Your task to perform on an android device: add a label to a message in the gmail app Image 0: 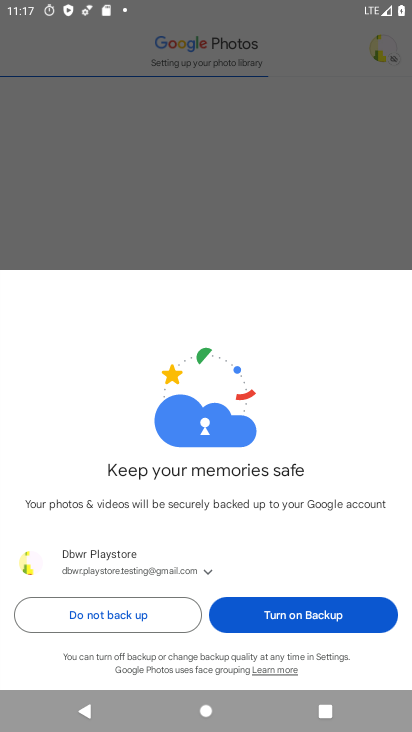
Step 0: press home button
Your task to perform on an android device: add a label to a message in the gmail app Image 1: 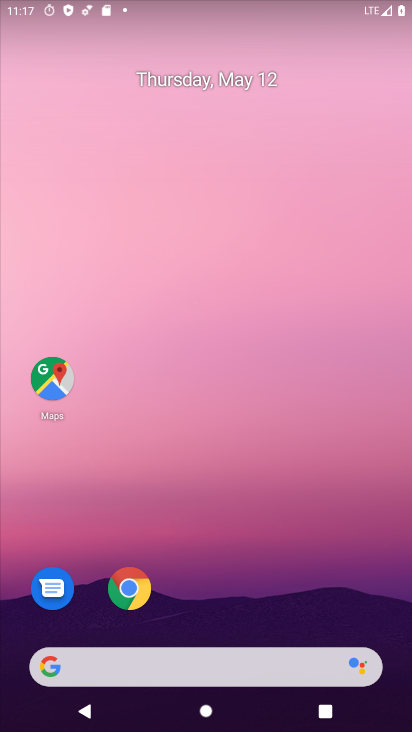
Step 1: drag from (250, 599) to (253, 143)
Your task to perform on an android device: add a label to a message in the gmail app Image 2: 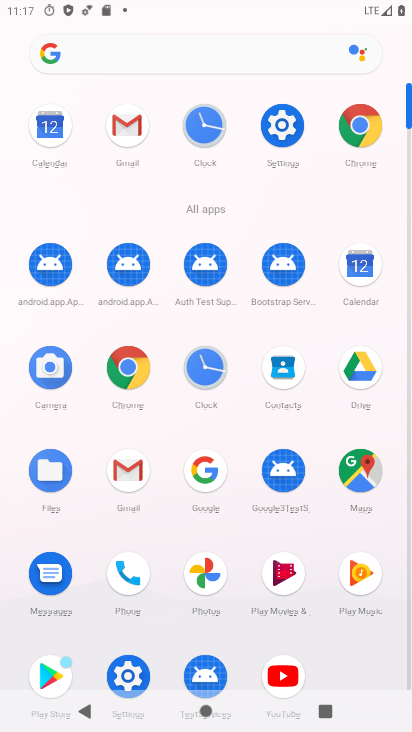
Step 2: click (127, 465)
Your task to perform on an android device: add a label to a message in the gmail app Image 3: 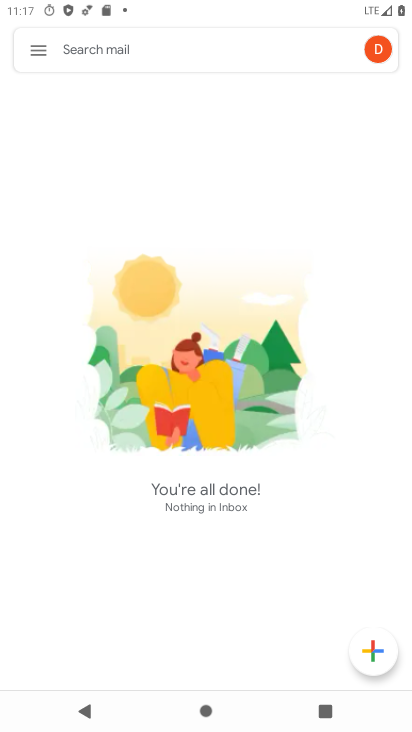
Step 3: click (35, 46)
Your task to perform on an android device: add a label to a message in the gmail app Image 4: 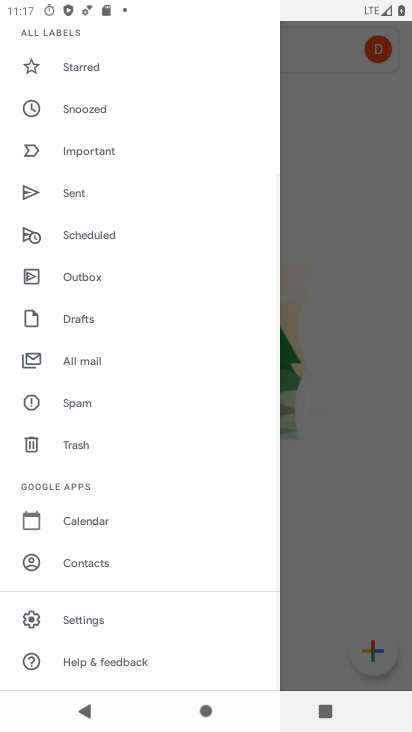
Step 4: click (101, 356)
Your task to perform on an android device: add a label to a message in the gmail app Image 5: 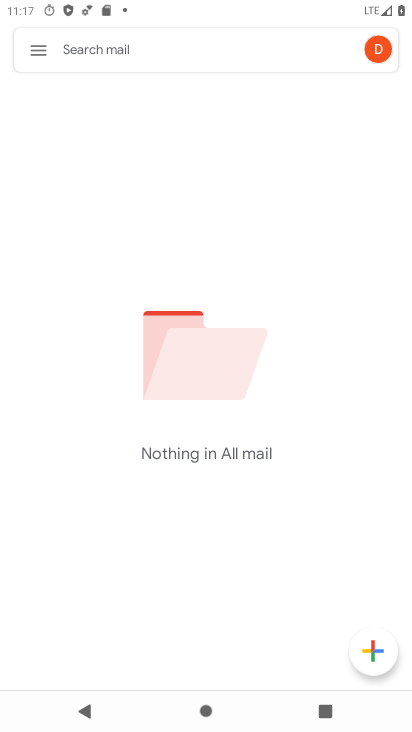
Step 5: task complete